Your task to perform on an android device: Open settings Image 0: 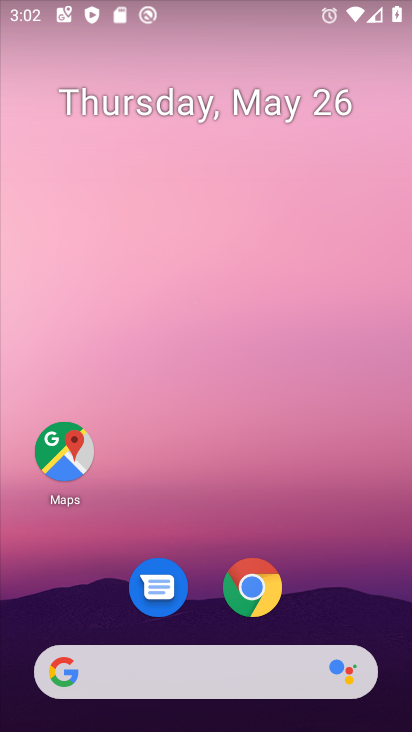
Step 0: drag from (383, 605) to (391, 239)
Your task to perform on an android device: Open settings Image 1: 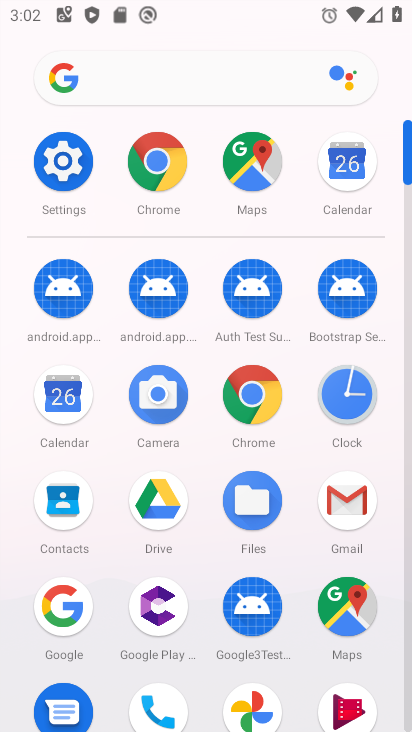
Step 1: click (66, 186)
Your task to perform on an android device: Open settings Image 2: 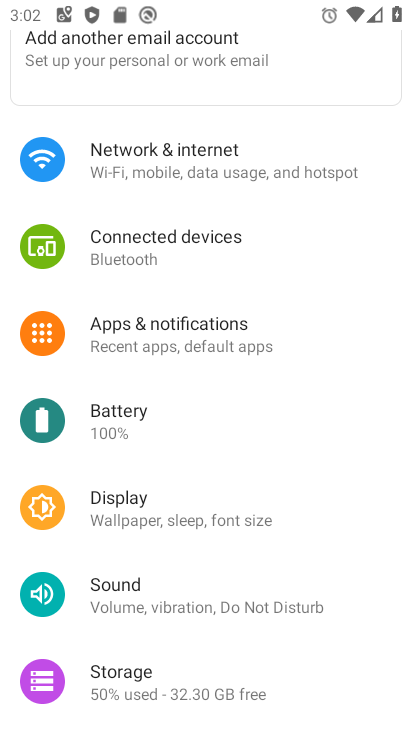
Step 2: task complete